Your task to perform on an android device: turn on translation in the chrome app Image 0: 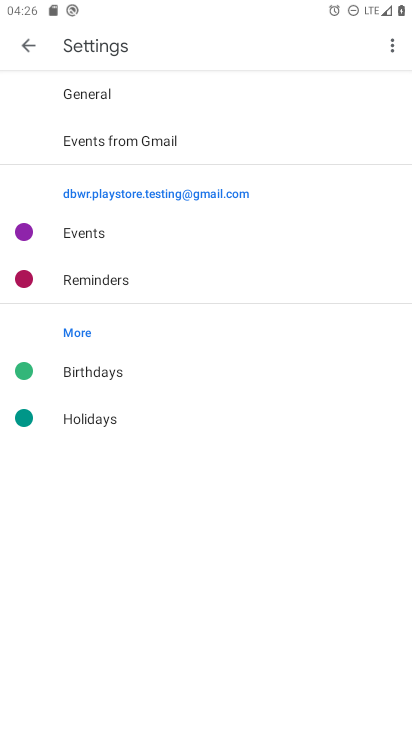
Step 0: press back button
Your task to perform on an android device: turn on translation in the chrome app Image 1: 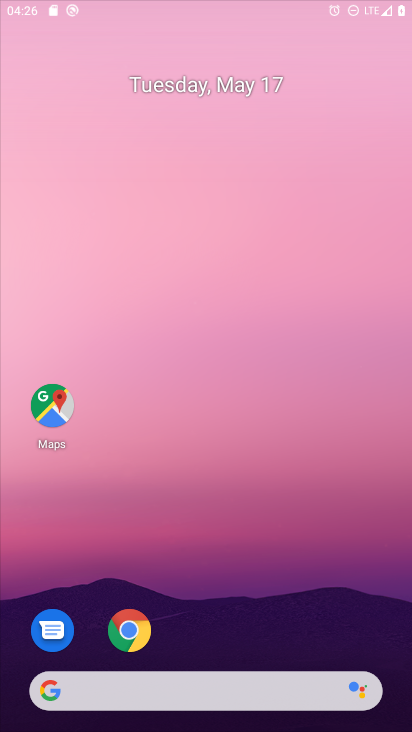
Step 1: drag from (264, 289) to (268, 79)
Your task to perform on an android device: turn on translation in the chrome app Image 2: 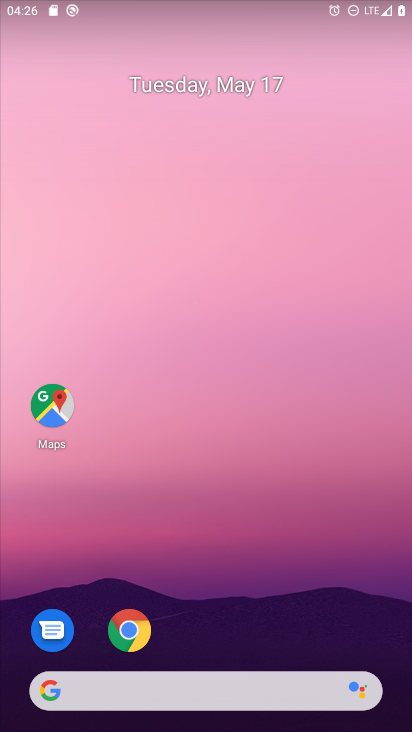
Step 2: drag from (203, 556) to (234, 29)
Your task to perform on an android device: turn on translation in the chrome app Image 3: 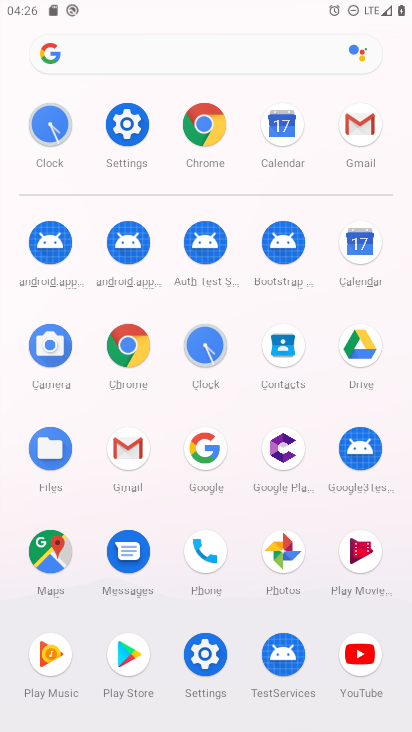
Step 3: click (211, 122)
Your task to perform on an android device: turn on translation in the chrome app Image 4: 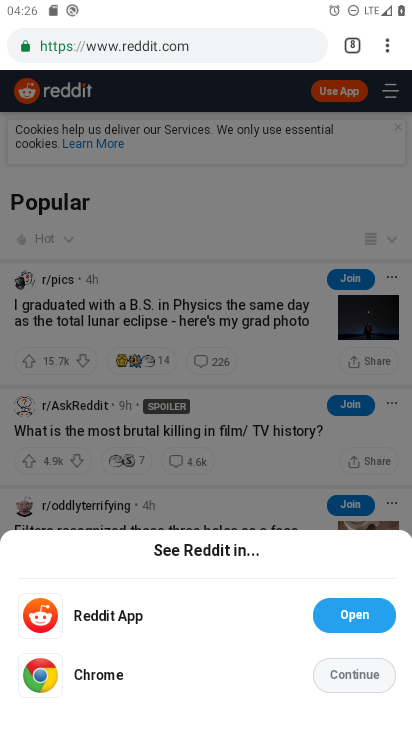
Step 4: drag from (386, 39) to (225, 538)
Your task to perform on an android device: turn on translation in the chrome app Image 5: 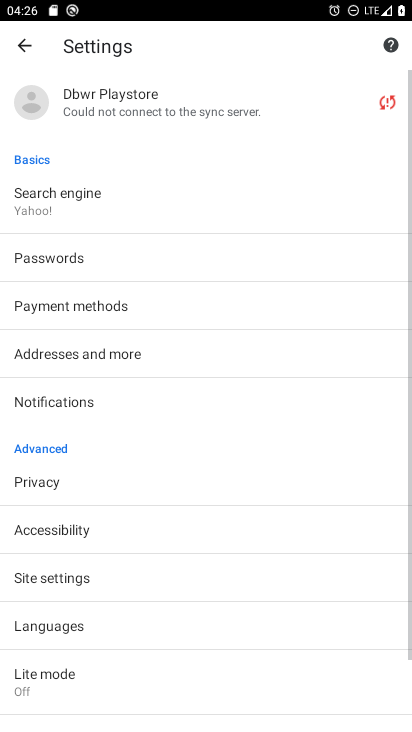
Step 5: click (51, 631)
Your task to perform on an android device: turn on translation in the chrome app Image 6: 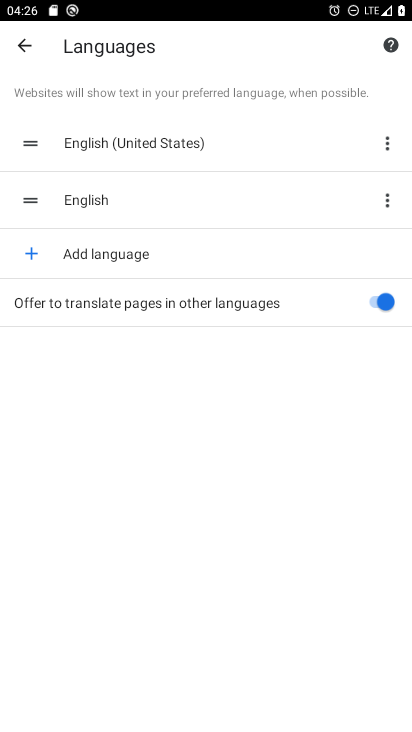
Step 6: task complete